Your task to perform on an android device: Check the news Image 0: 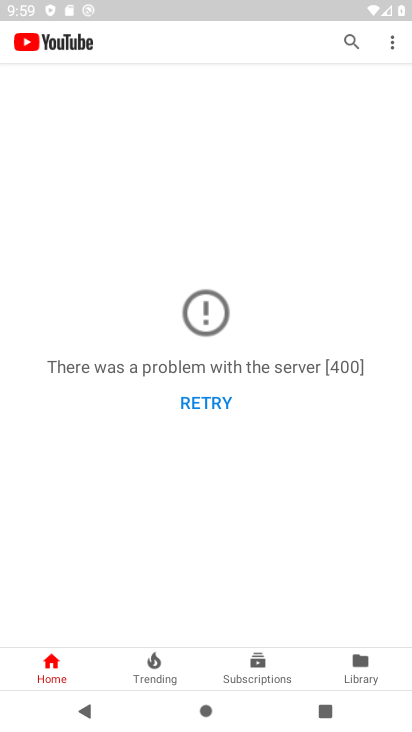
Step 0: press back button
Your task to perform on an android device: Check the news Image 1: 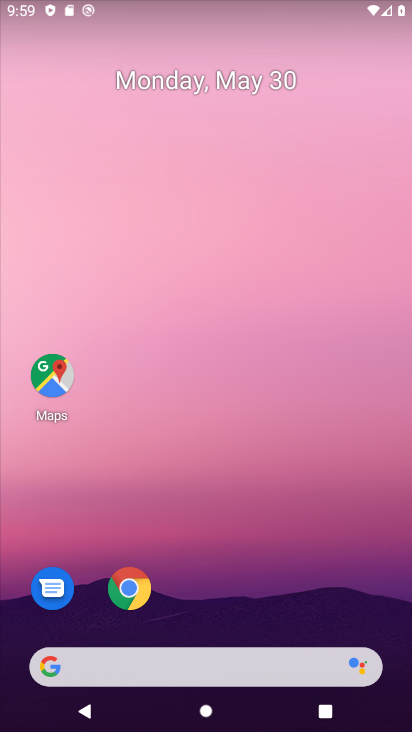
Step 1: task complete